Your task to perform on an android device: Open notification settings Image 0: 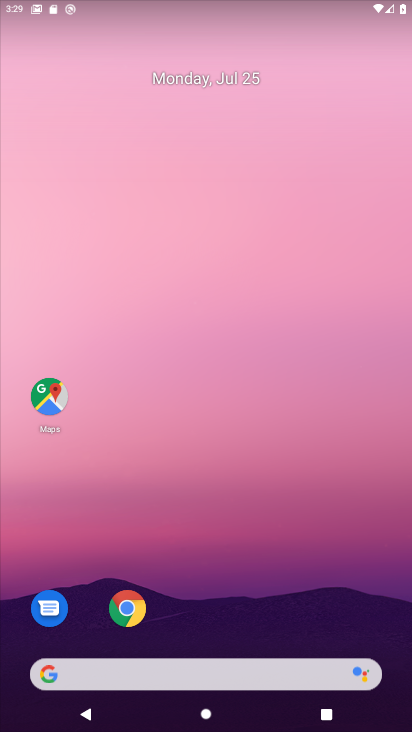
Step 0: press home button
Your task to perform on an android device: Open notification settings Image 1: 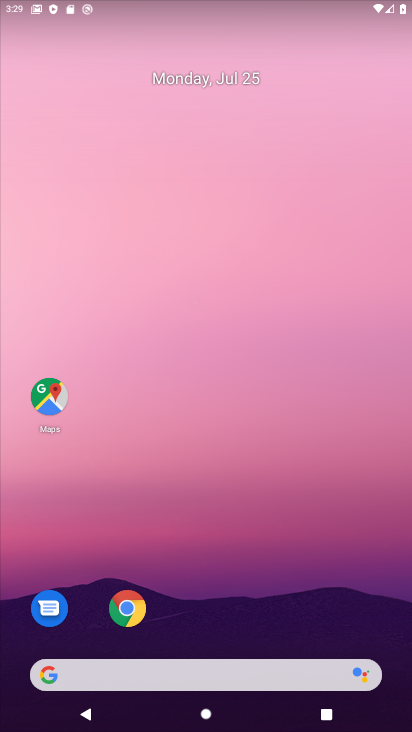
Step 1: drag from (185, 645) to (226, 8)
Your task to perform on an android device: Open notification settings Image 2: 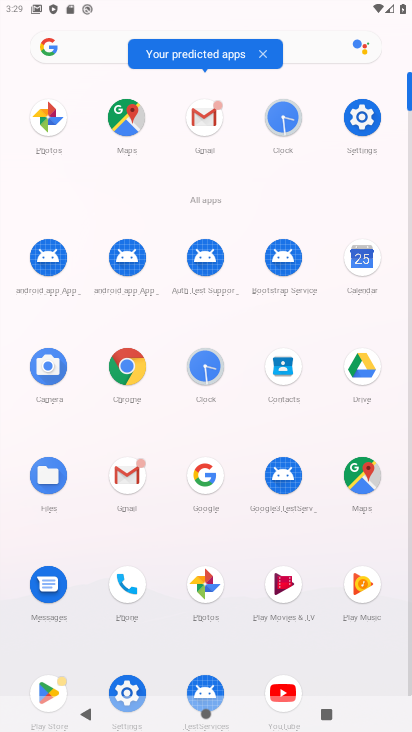
Step 2: click (362, 116)
Your task to perform on an android device: Open notification settings Image 3: 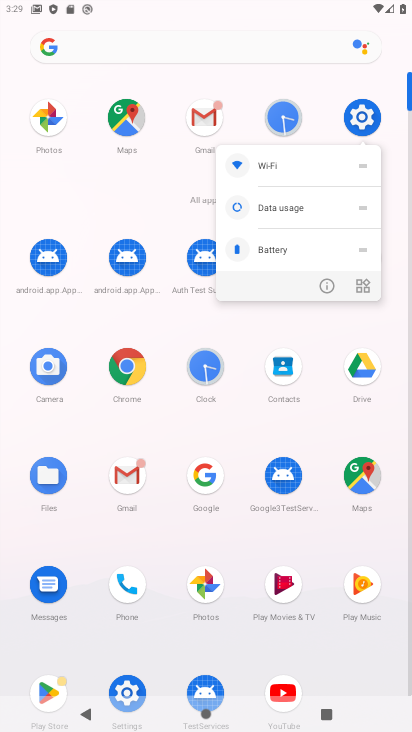
Step 3: click (363, 110)
Your task to perform on an android device: Open notification settings Image 4: 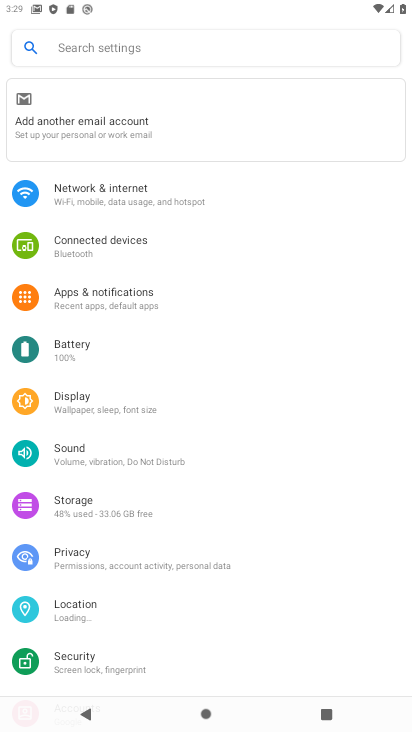
Step 4: click (168, 288)
Your task to perform on an android device: Open notification settings Image 5: 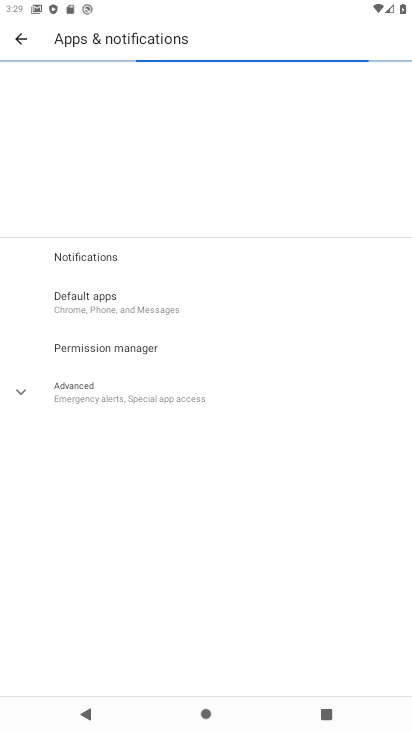
Step 5: click (133, 292)
Your task to perform on an android device: Open notification settings Image 6: 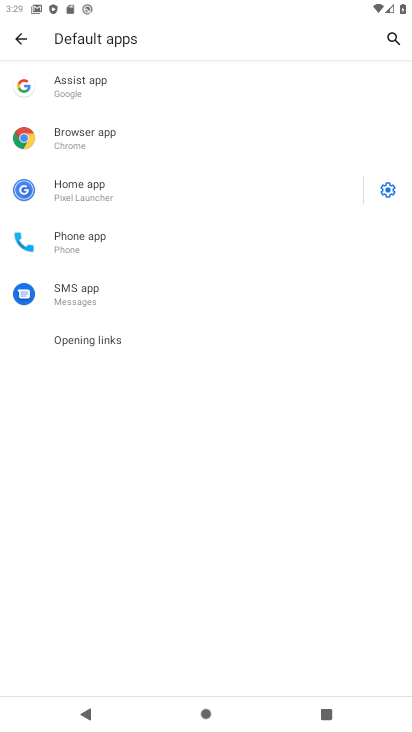
Step 6: click (23, 36)
Your task to perform on an android device: Open notification settings Image 7: 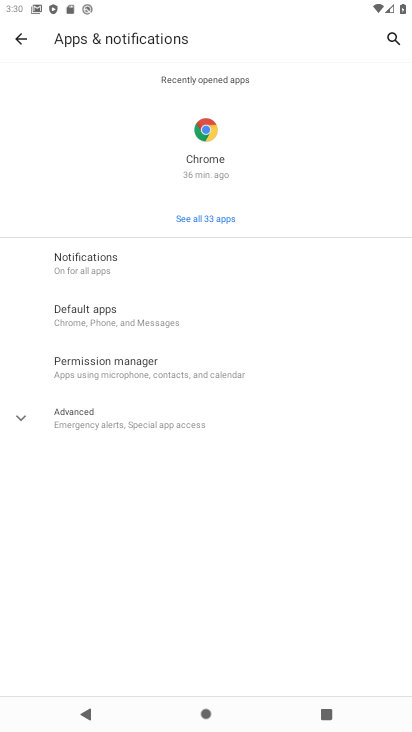
Step 7: click (128, 256)
Your task to perform on an android device: Open notification settings Image 8: 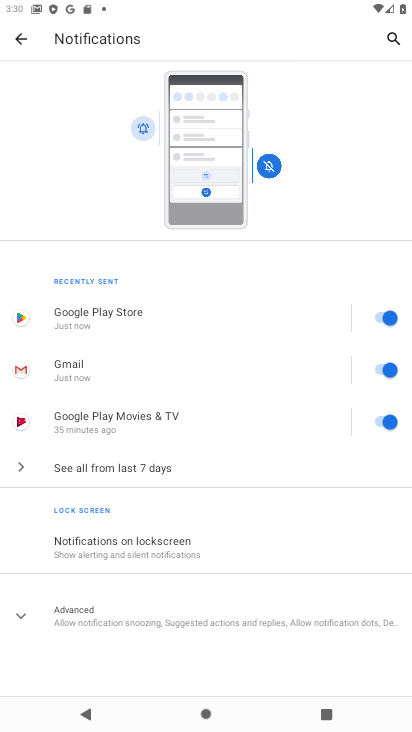
Step 8: click (77, 610)
Your task to perform on an android device: Open notification settings Image 9: 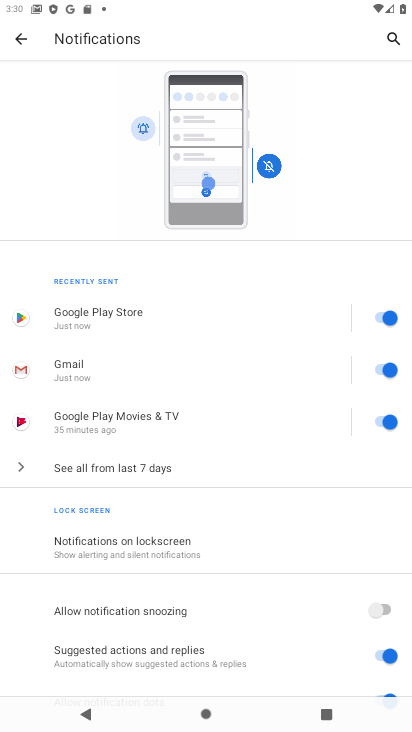
Step 9: task complete